Your task to perform on an android device: turn notification dots on Image 0: 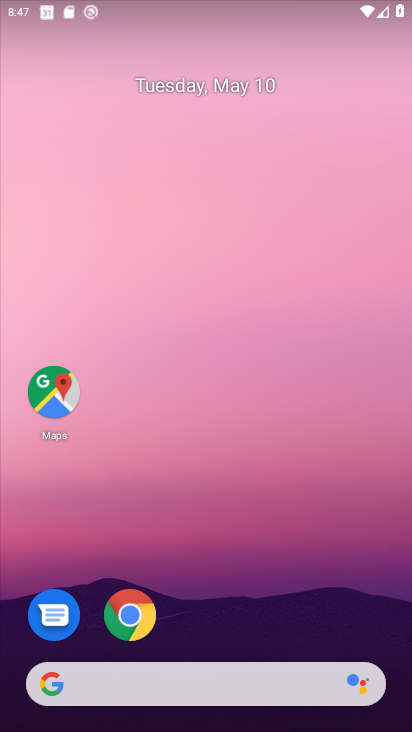
Step 0: click (290, 156)
Your task to perform on an android device: turn notification dots on Image 1: 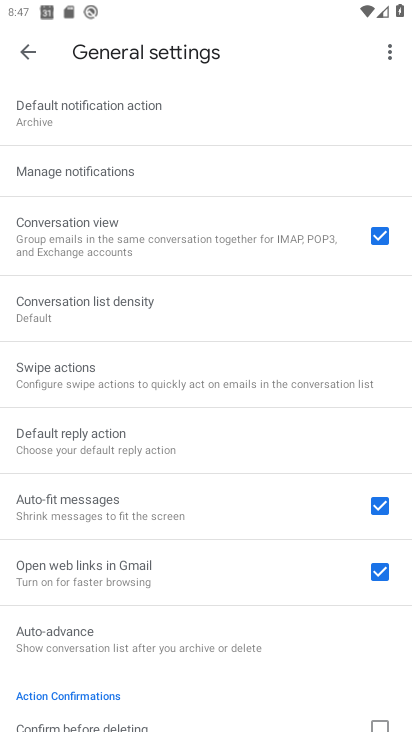
Step 1: drag from (161, 653) to (230, 193)
Your task to perform on an android device: turn notification dots on Image 2: 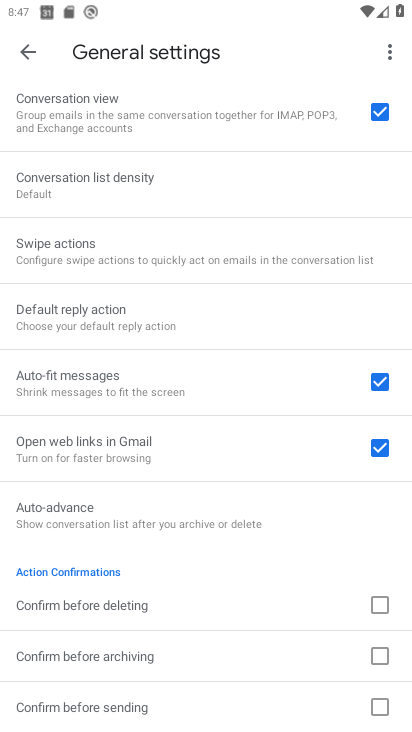
Step 2: drag from (100, 156) to (283, 724)
Your task to perform on an android device: turn notification dots on Image 3: 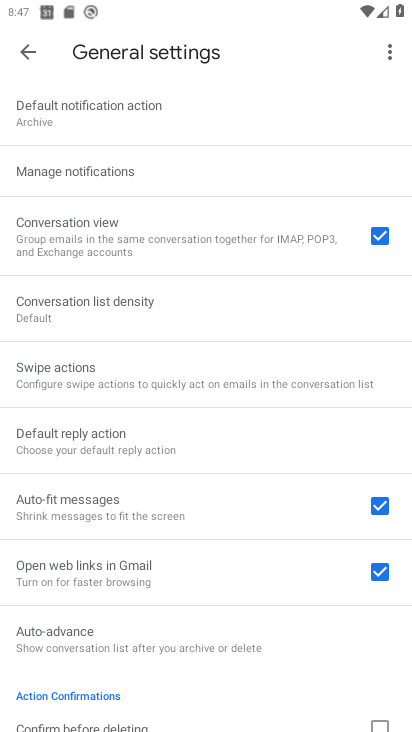
Step 3: drag from (154, 192) to (284, 710)
Your task to perform on an android device: turn notification dots on Image 4: 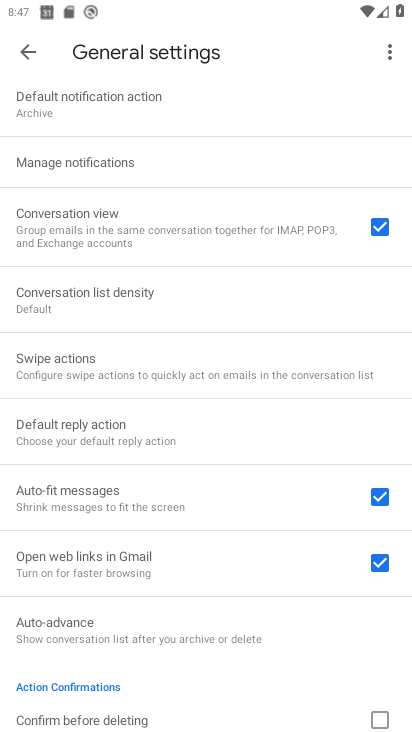
Step 4: click (29, 55)
Your task to perform on an android device: turn notification dots on Image 5: 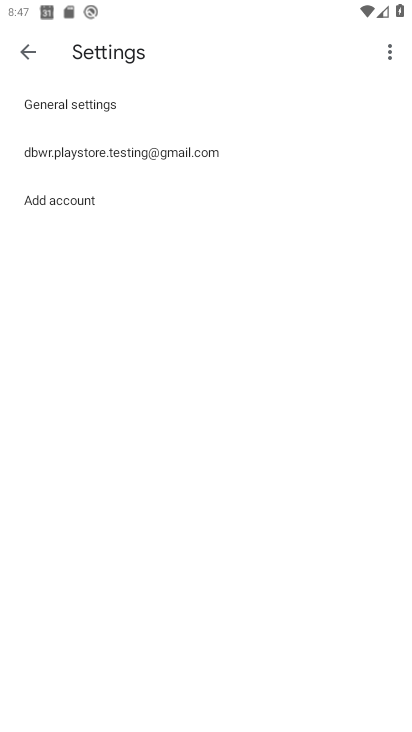
Step 5: press home button
Your task to perform on an android device: turn notification dots on Image 6: 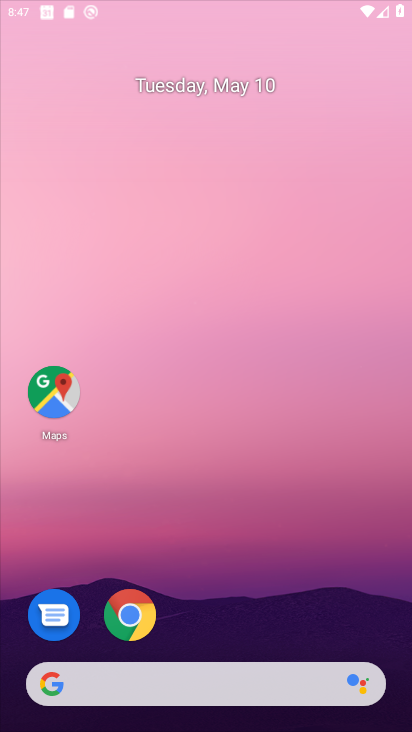
Step 6: drag from (151, 653) to (194, 130)
Your task to perform on an android device: turn notification dots on Image 7: 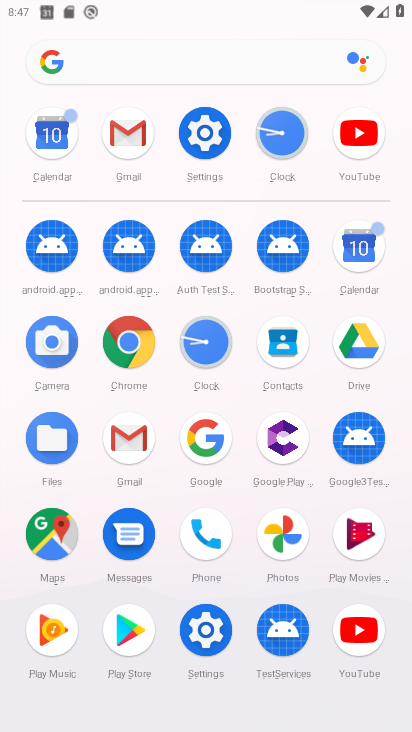
Step 7: click (198, 129)
Your task to perform on an android device: turn notification dots on Image 8: 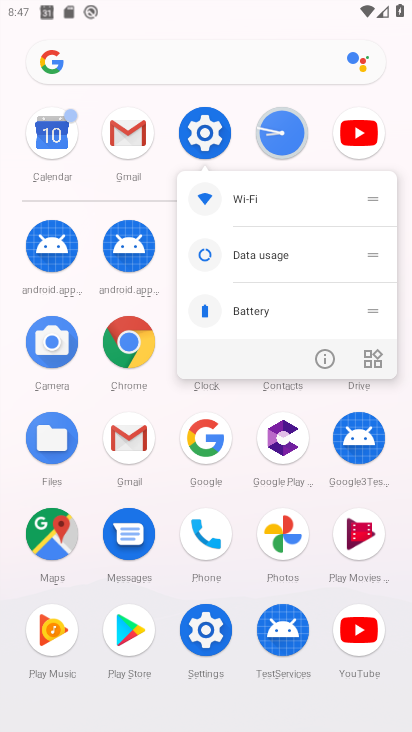
Step 8: click (322, 353)
Your task to perform on an android device: turn notification dots on Image 9: 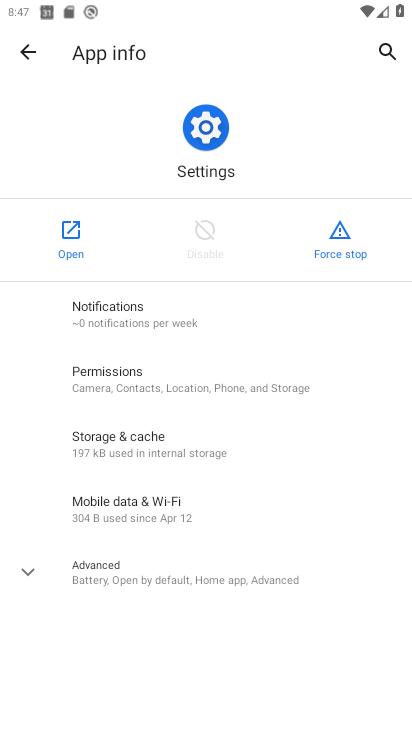
Step 9: click (55, 226)
Your task to perform on an android device: turn notification dots on Image 10: 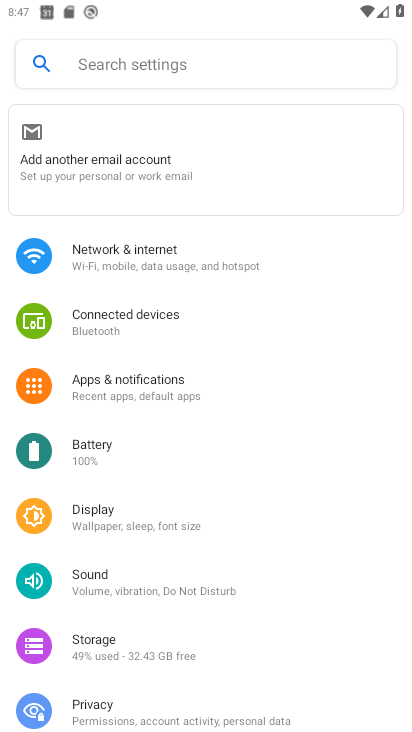
Step 10: click (133, 392)
Your task to perform on an android device: turn notification dots on Image 11: 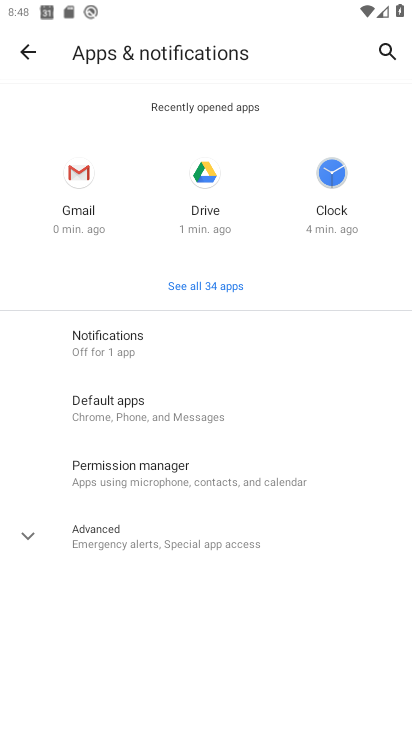
Step 11: click (133, 337)
Your task to perform on an android device: turn notification dots on Image 12: 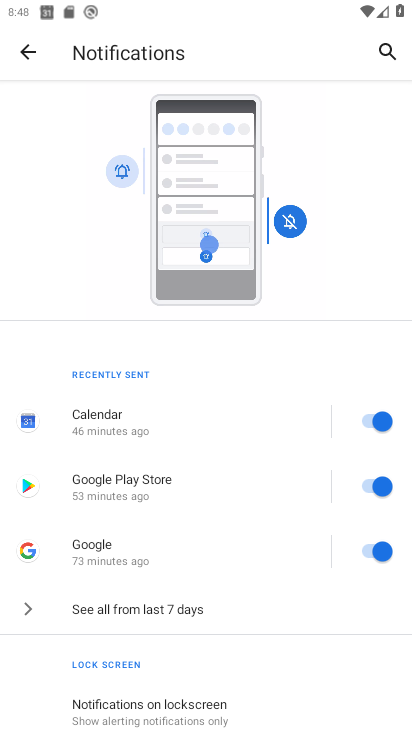
Step 12: drag from (210, 672) to (200, 364)
Your task to perform on an android device: turn notification dots on Image 13: 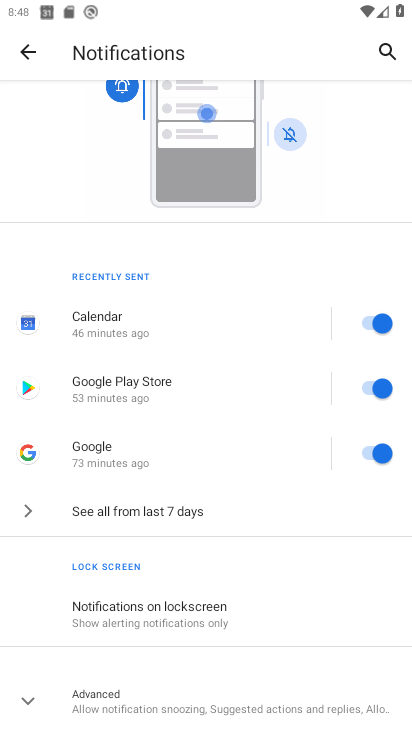
Step 13: click (93, 707)
Your task to perform on an android device: turn notification dots on Image 14: 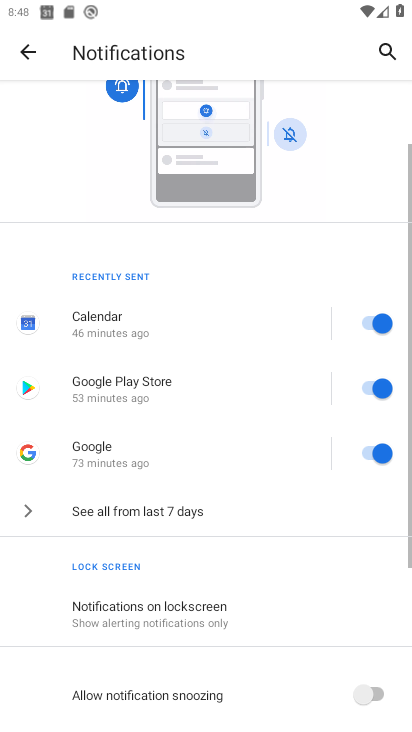
Step 14: task complete